Your task to perform on an android device: open wifi settings Image 0: 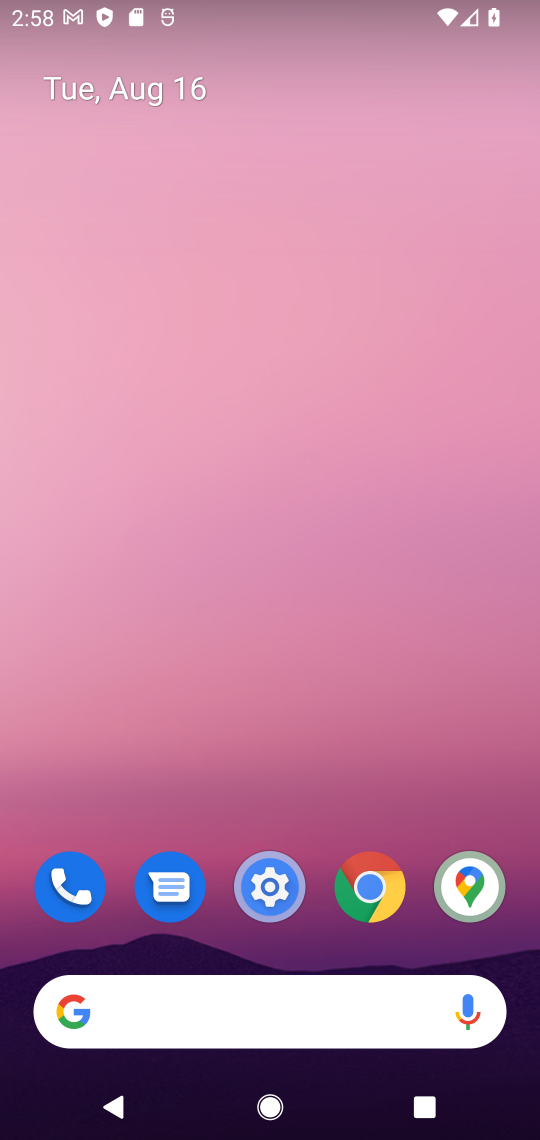
Step 0: drag from (409, 800) to (352, 60)
Your task to perform on an android device: open wifi settings Image 1: 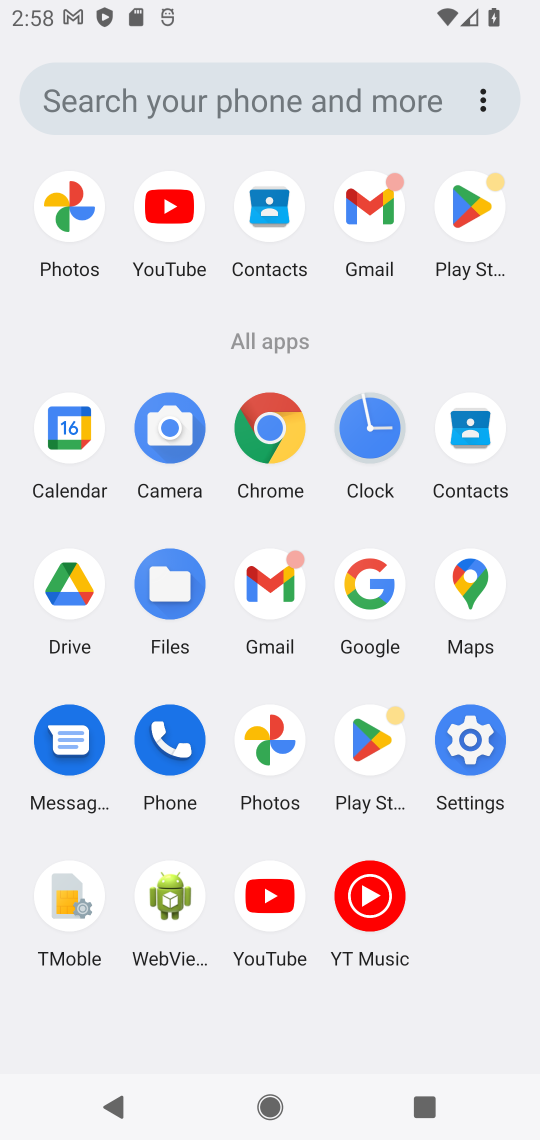
Step 1: click (475, 740)
Your task to perform on an android device: open wifi settings Image 2: 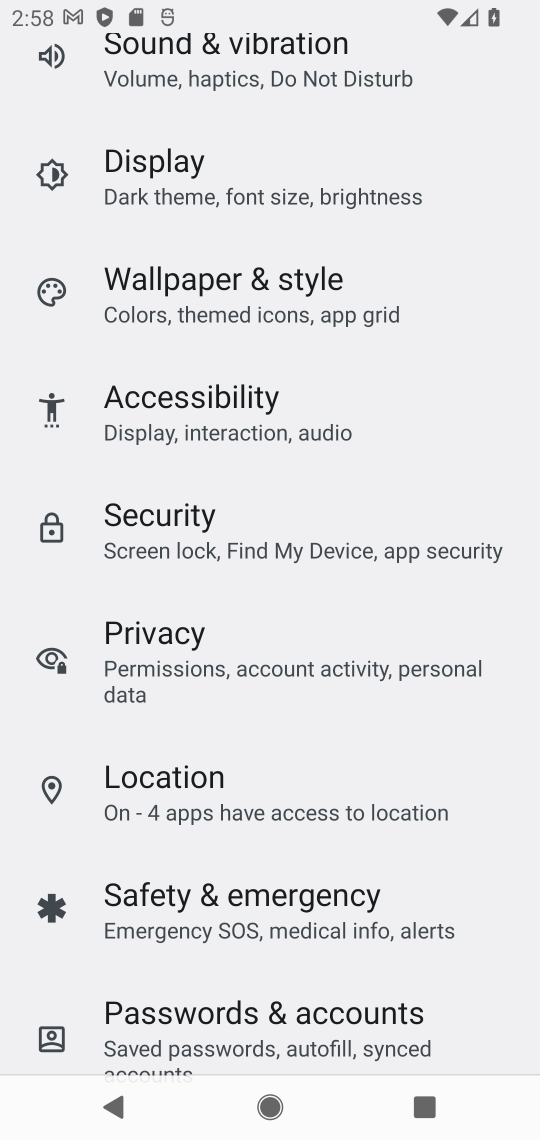
Step 2: drag from (405, 142) to (378, 883)
Your task to perform on an android device: open wifi settings Image 3: 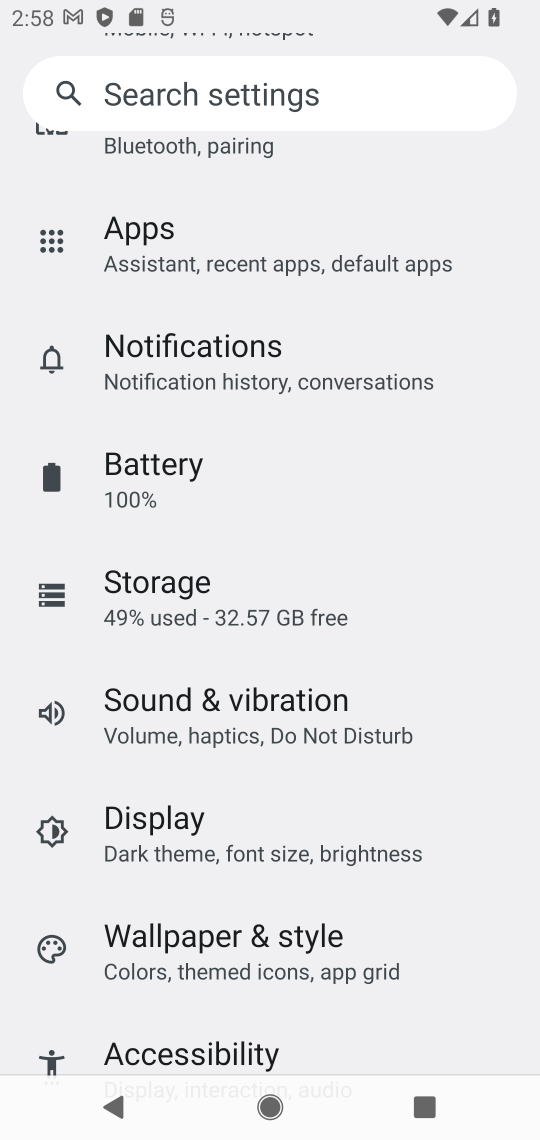
Step 3: drag from (395, 229) to (423, 795)
Your task to perform on an android device: open wifi settings Image 4: 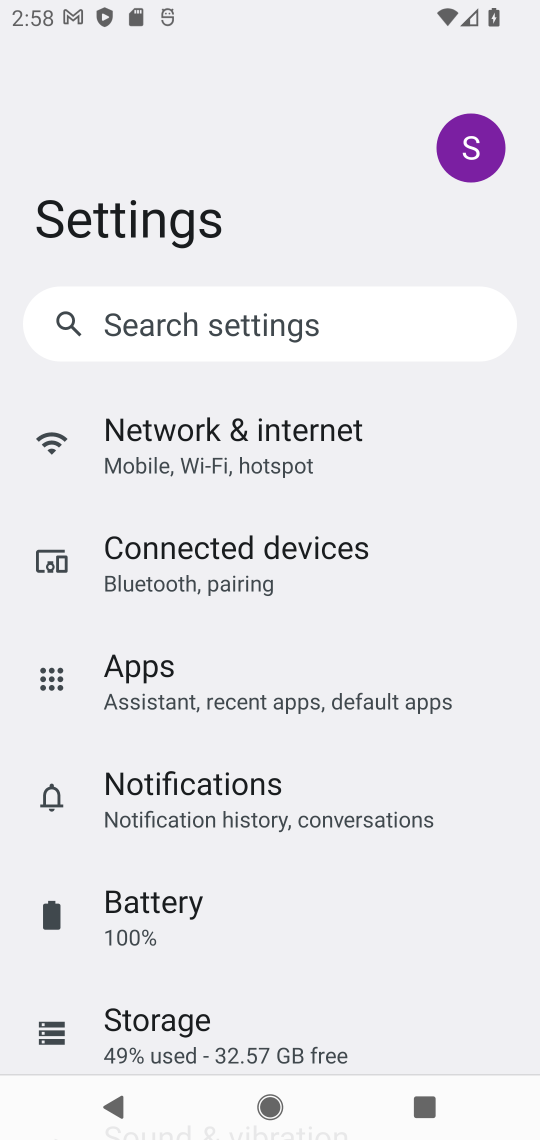
Step 4: click (256, 473)
Your task to perform on an android device: open wifi settings Image 5: 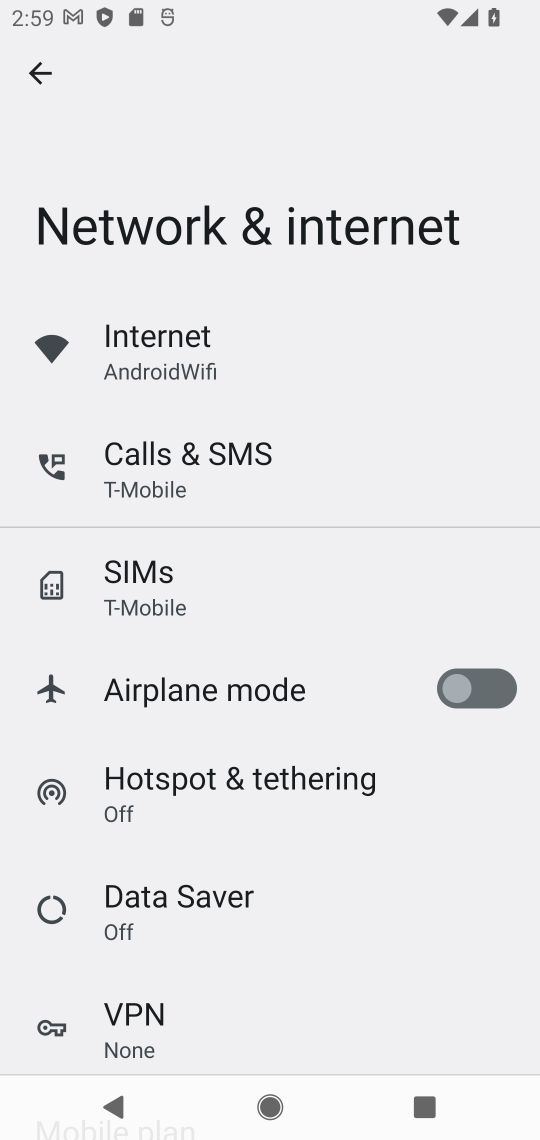
Step 5: click (196, 345)
Your task to perform on an android device: open wifi settings Image 6: 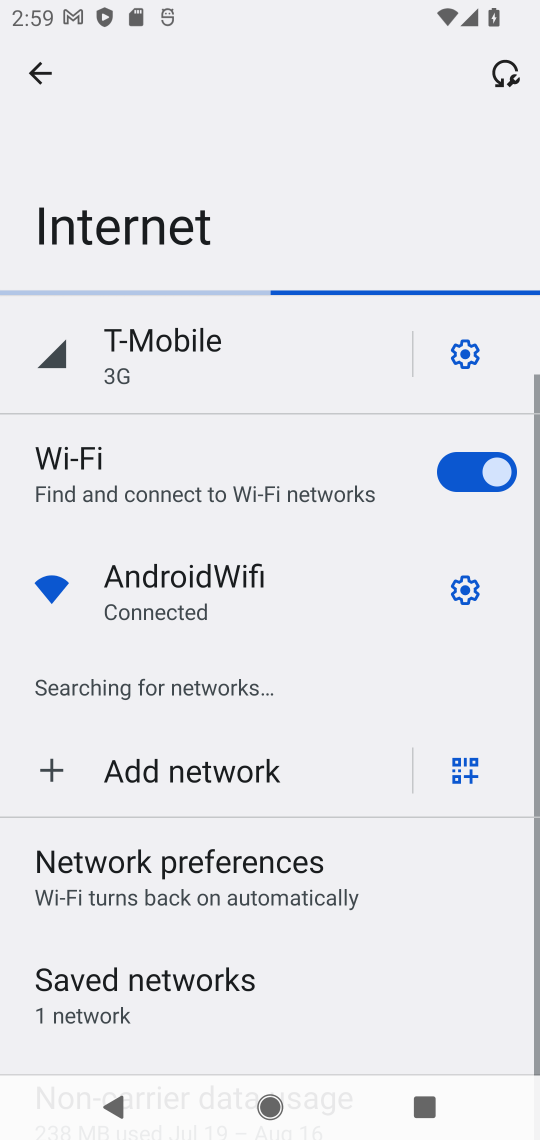
Step 6: click (464, 586)
Your task to perform on an android device: open wifi settings Image 7: 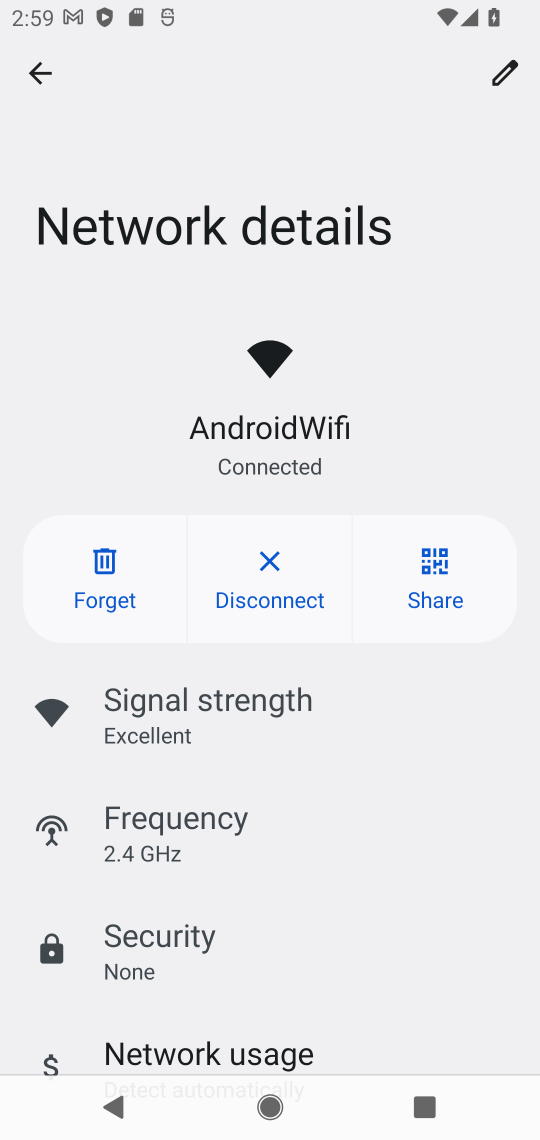
Step 7: task complete